Your task to perform on an android device: Show me productivity apps on the Play Store Image 0: 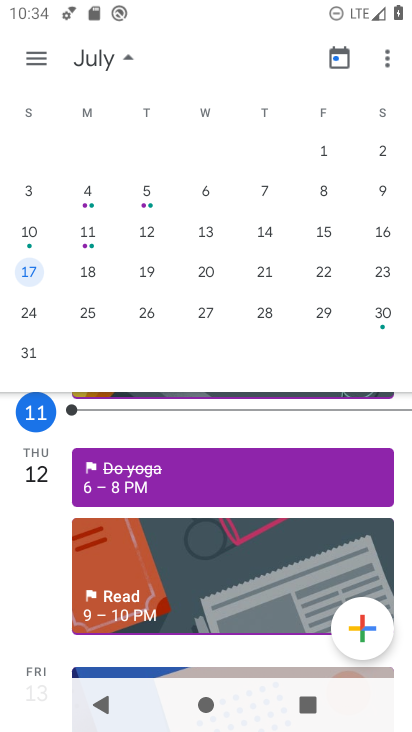
Step 0: press home button
Your task to perform on an android device: Show me productivity apps on the Play Store Image 1: 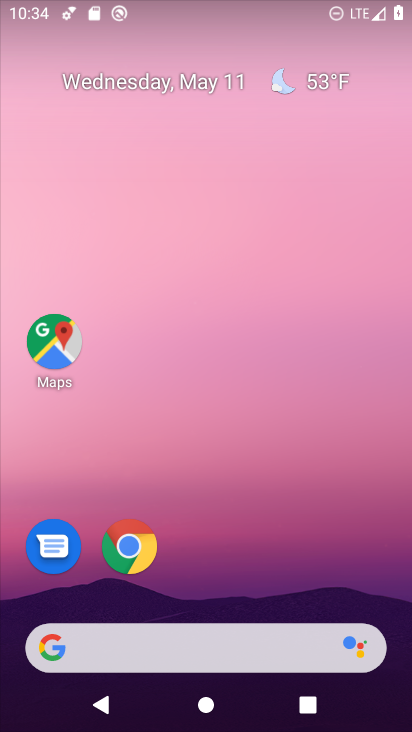
Step 1: drag from (401, 654) to (279, 7)
Your task to perform on an android device: Show me productivity apps on the Play Store Image 2: 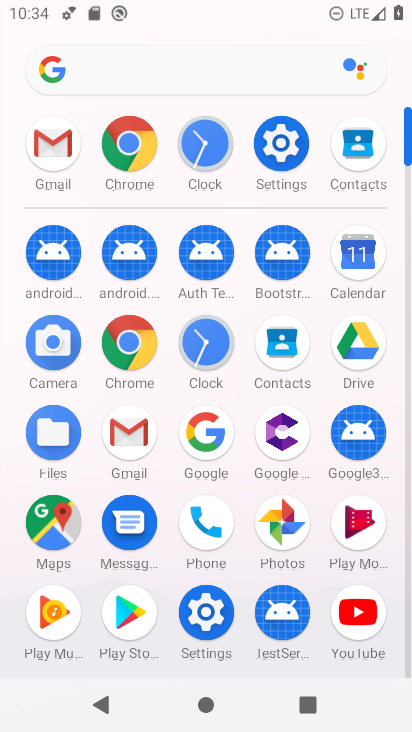
Step 2: click (113, 619)
Your task to perform on an android device: Show me productivity apps on the Play Store Image 3: 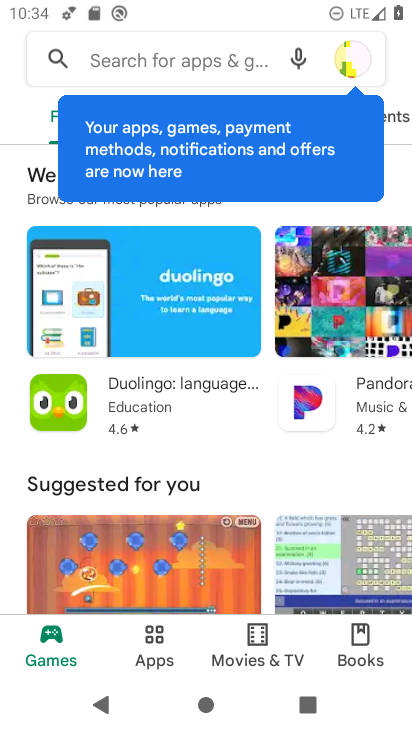
Step 3: task complete